Your task to perform on an android device: Go to ESPN.com Image 0: 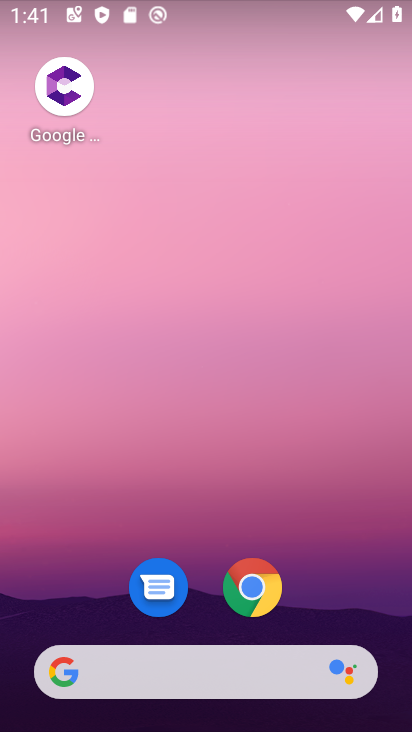
Step 0: drag from (212, 595) to (251, 100)
Your task to perform on an android device: Go to ESPN.com Image 1: 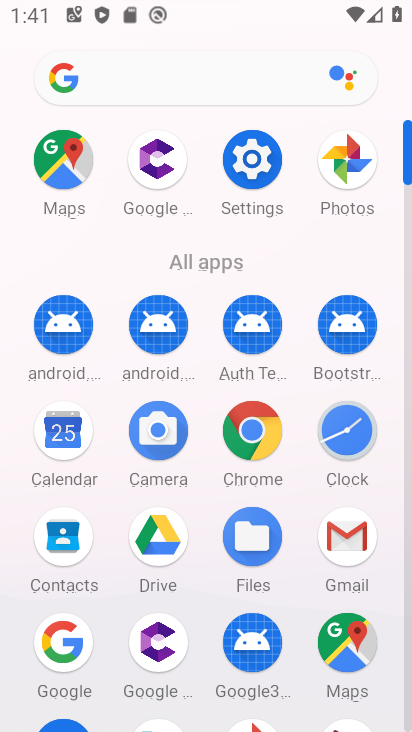
Step 1: click (64, 641)
Your task to perform on an android device: Go to ESPN.com Image 2: 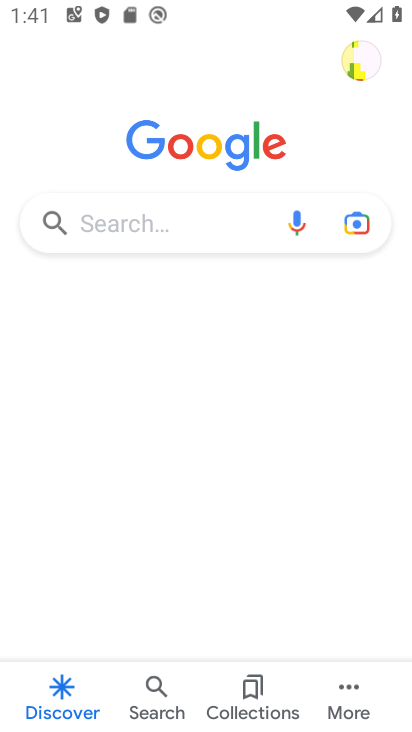
Step 2: click (171, 229)
Your task to perform on an android device: Go to ESPN.com Image 3: 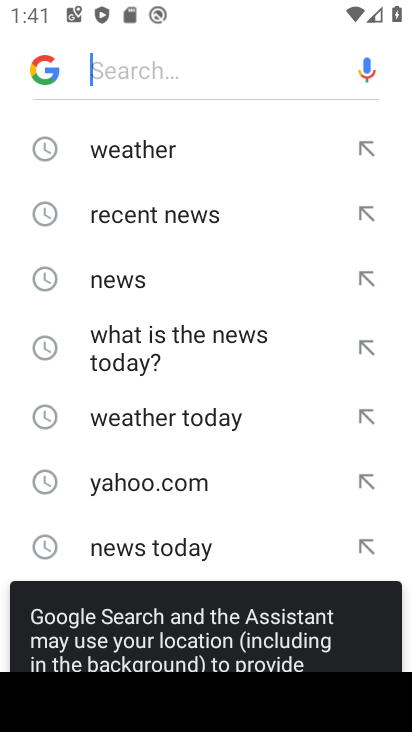
Step 3: drag from (173, 532) to (190, 149)
Your task to perform on an android device: Go to ESPN.com Image 4: 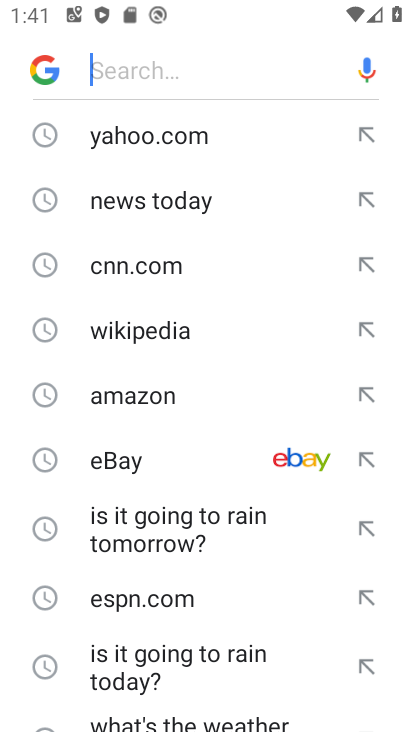
Step 4: click (191, 614)
Your task to perform on an android device: Go to ESPN.com Image 5: 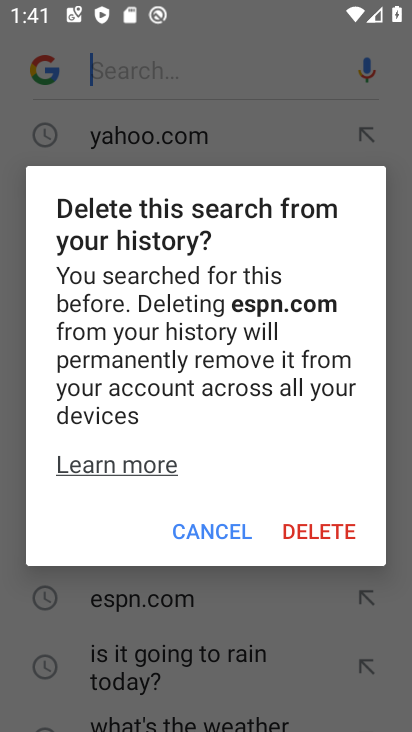
Step 5: click (206, 541)
Your task to perform on an android device: Go to ESPN.com Image 6: 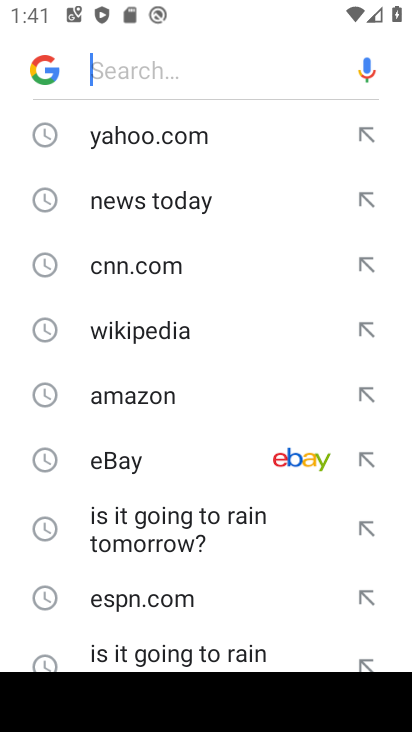
Step 6: click (166, 611)
Your task to perform on an android device: Go to ESPN.com Image 7: 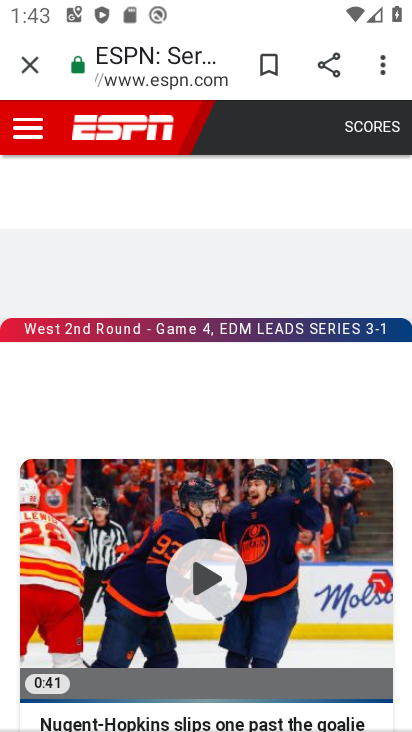
Step 7: task complete